Your task to perform on an android device: Add "razer blade" to the cart on bestbuy.com, then select checkout. Image 0: 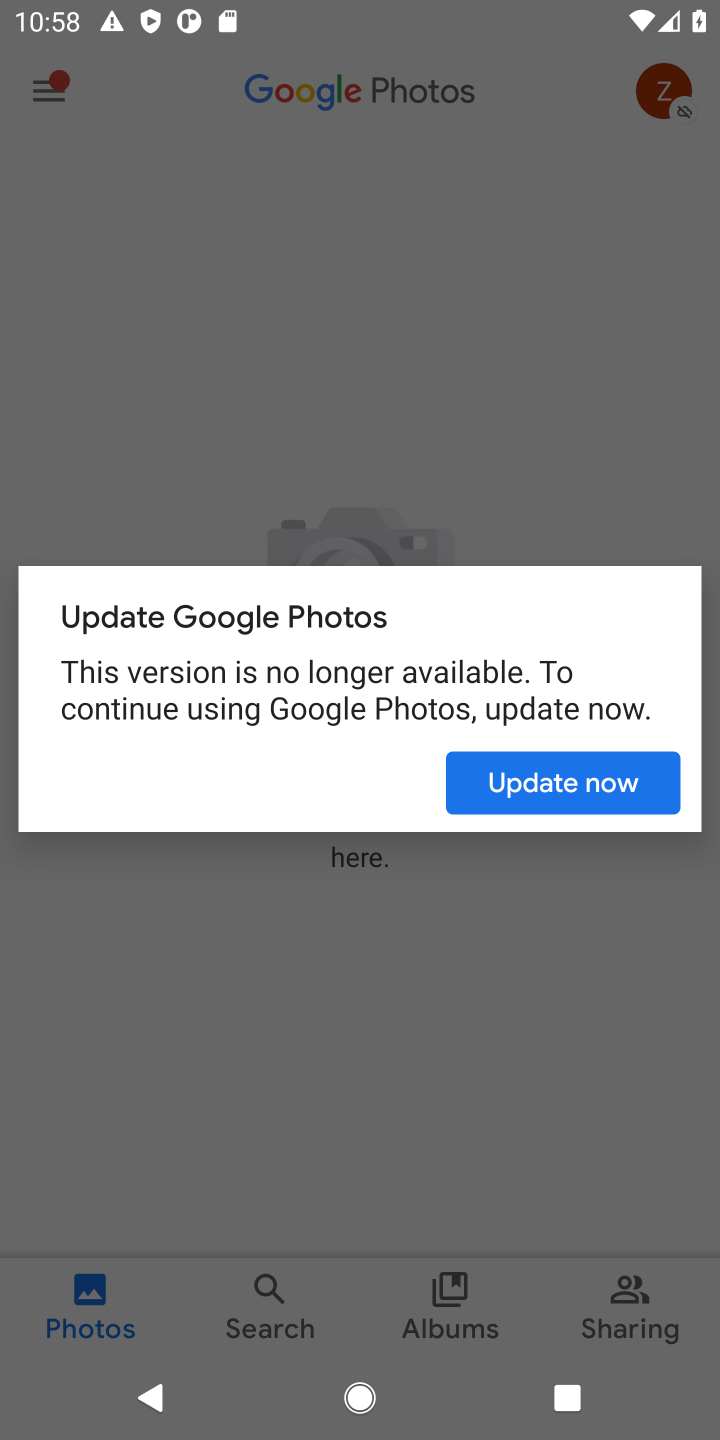
Step 0: press home button
Your task to perform on an android device: Add "razer blade" to the cart on bestbuy.com, then select checkout. Image 1: 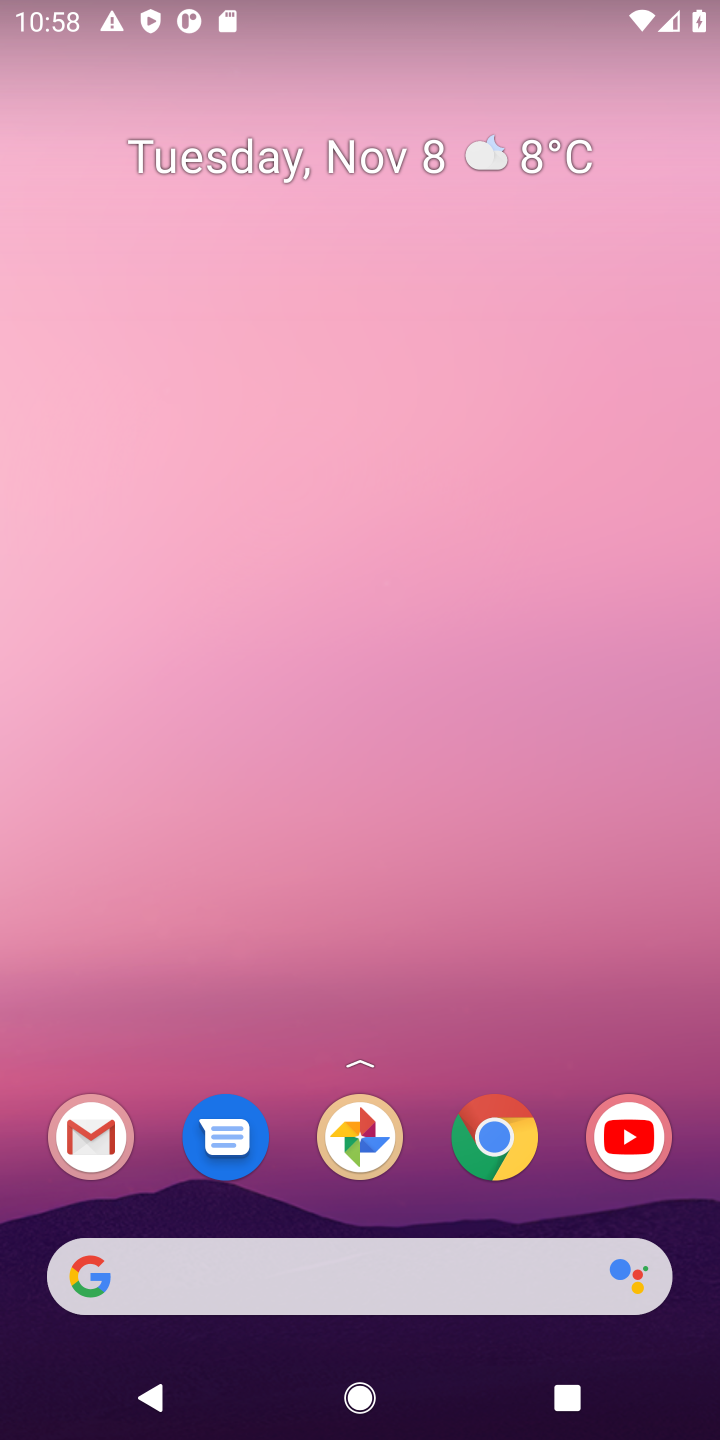
Step 1: click (502, 1127)
Your task to perform on an android device: Add "razer blade" to the cart on bestbuy.com, then select checkout. Image 2: 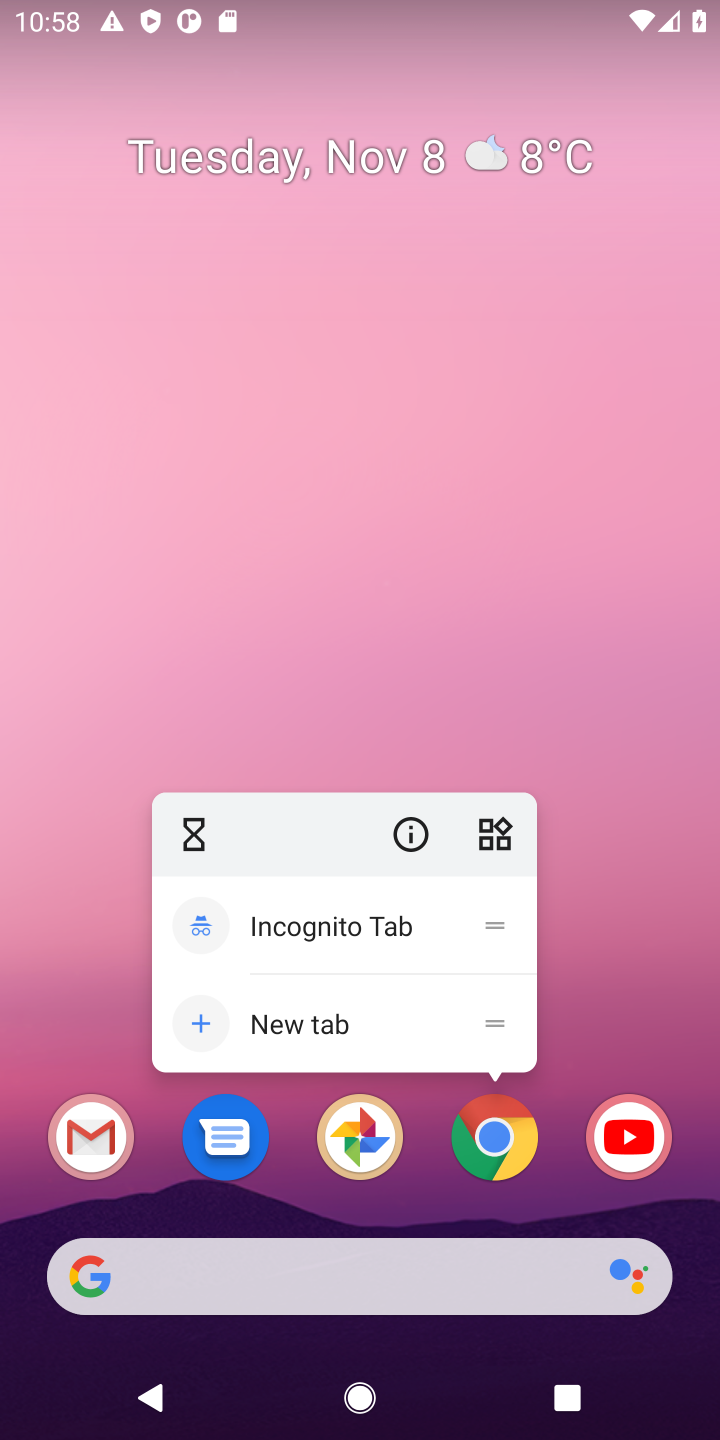
Step 2: click (494, 1148)
Your task to perform on an android device: Add "razer blade" to the cart on bestbuy.com, then select checkout. Image 3: 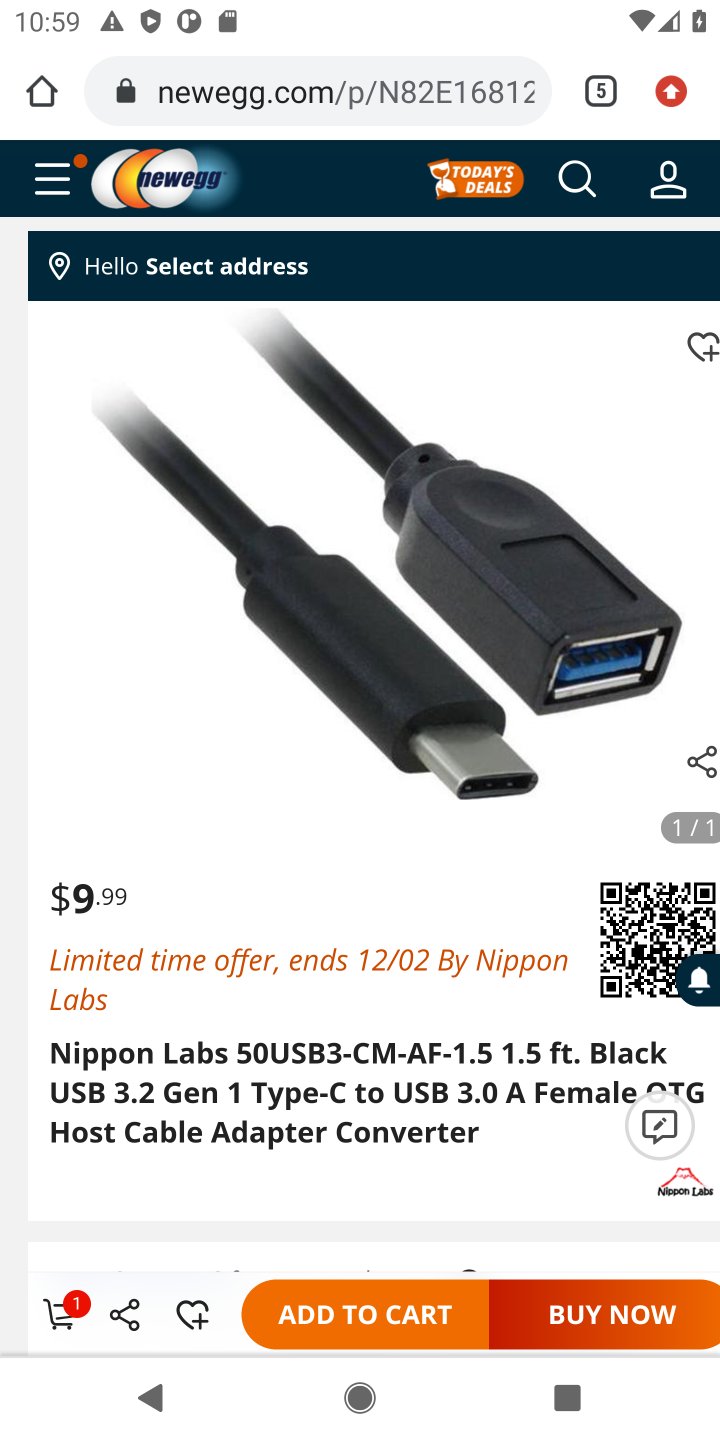
Step 3: click (593, 104)
Your task to perform on an android device: Add "razer blade" to the cart on bestbuy.com, then select checkout. Image 4: 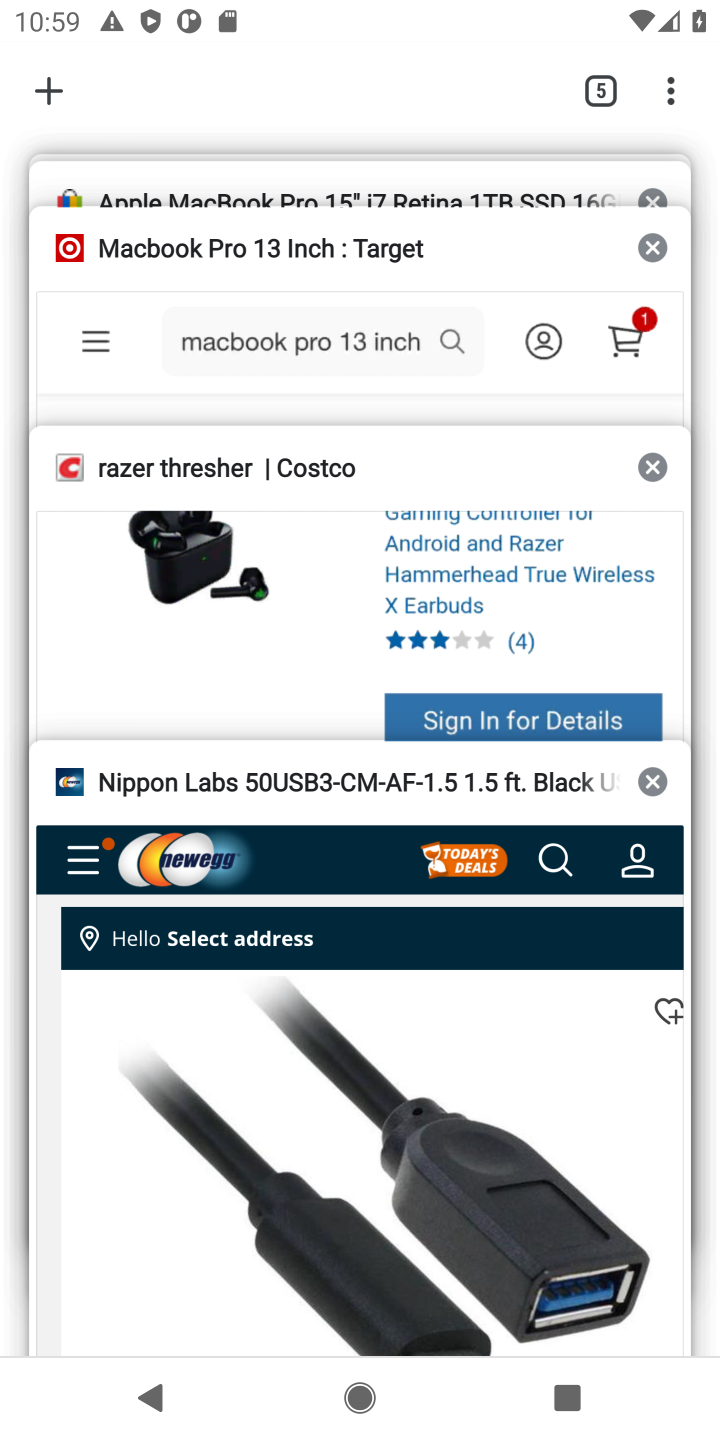
Step 4: click (37, 93)
Your task to perform on an android device: Add "razer blade" to the cart on bestbuy.com, then select checkout. Image 5: 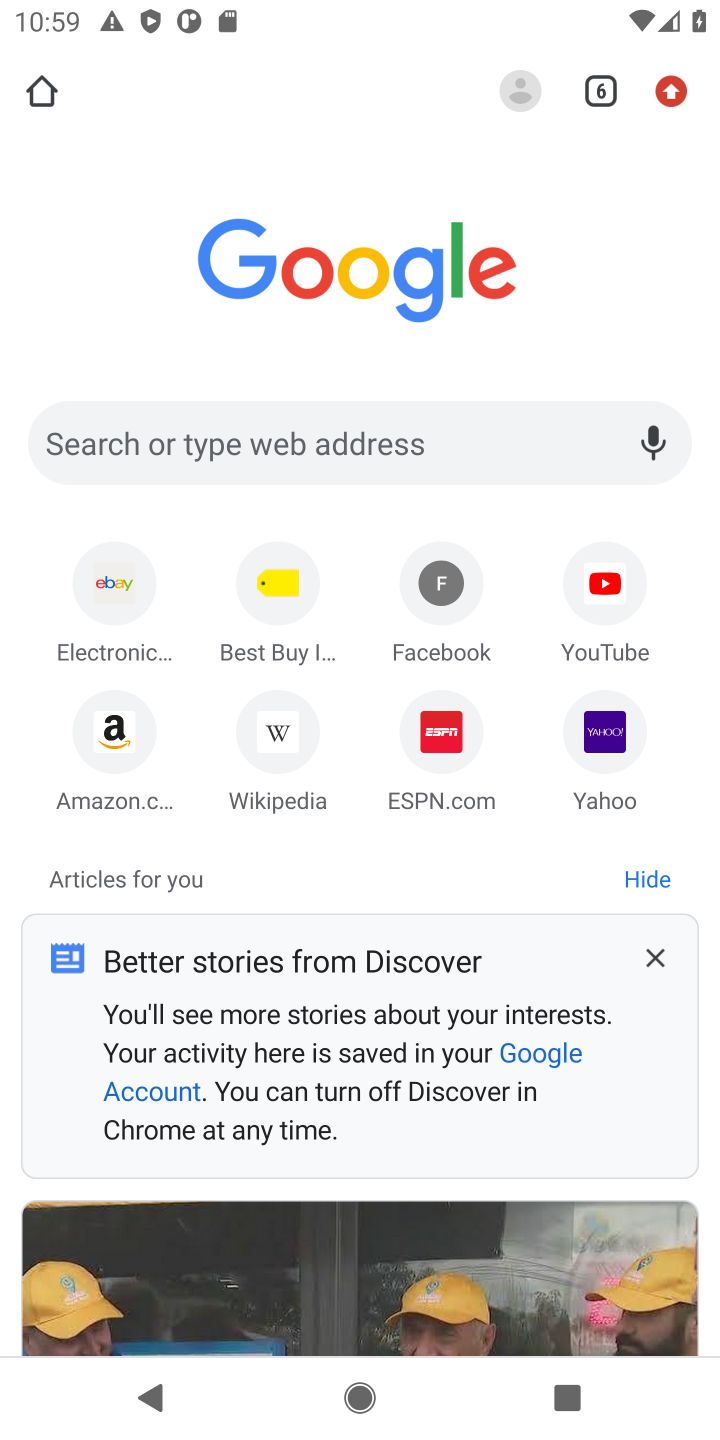
Step 5: click (298, 597)
Your task to perform on an android device: Add "razer blade" to the cart on bestbuy.com, then select checkout. Image 6: 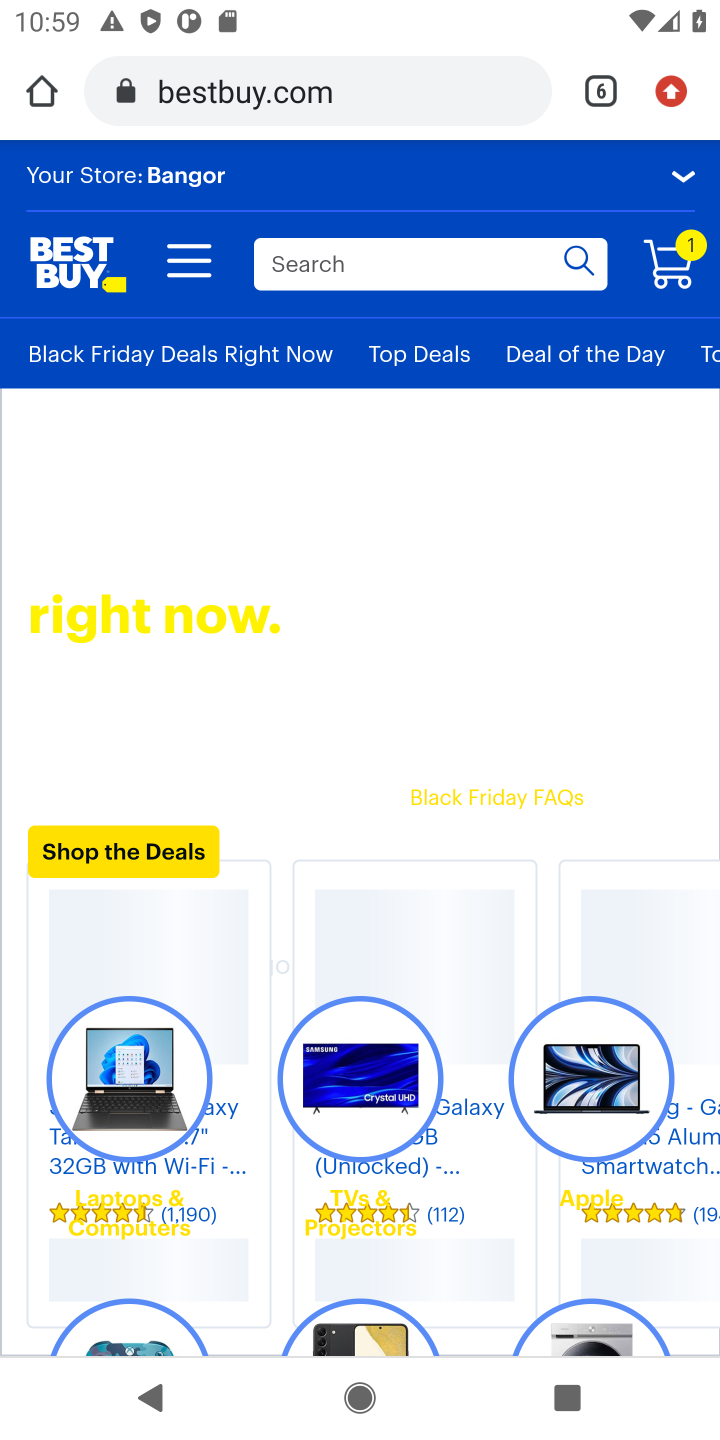
Step 6: click (360, 276)
Your task to perform on an android device: Add "razer blade" to the cart on bestbuy.com, then select checkout. Image 7: 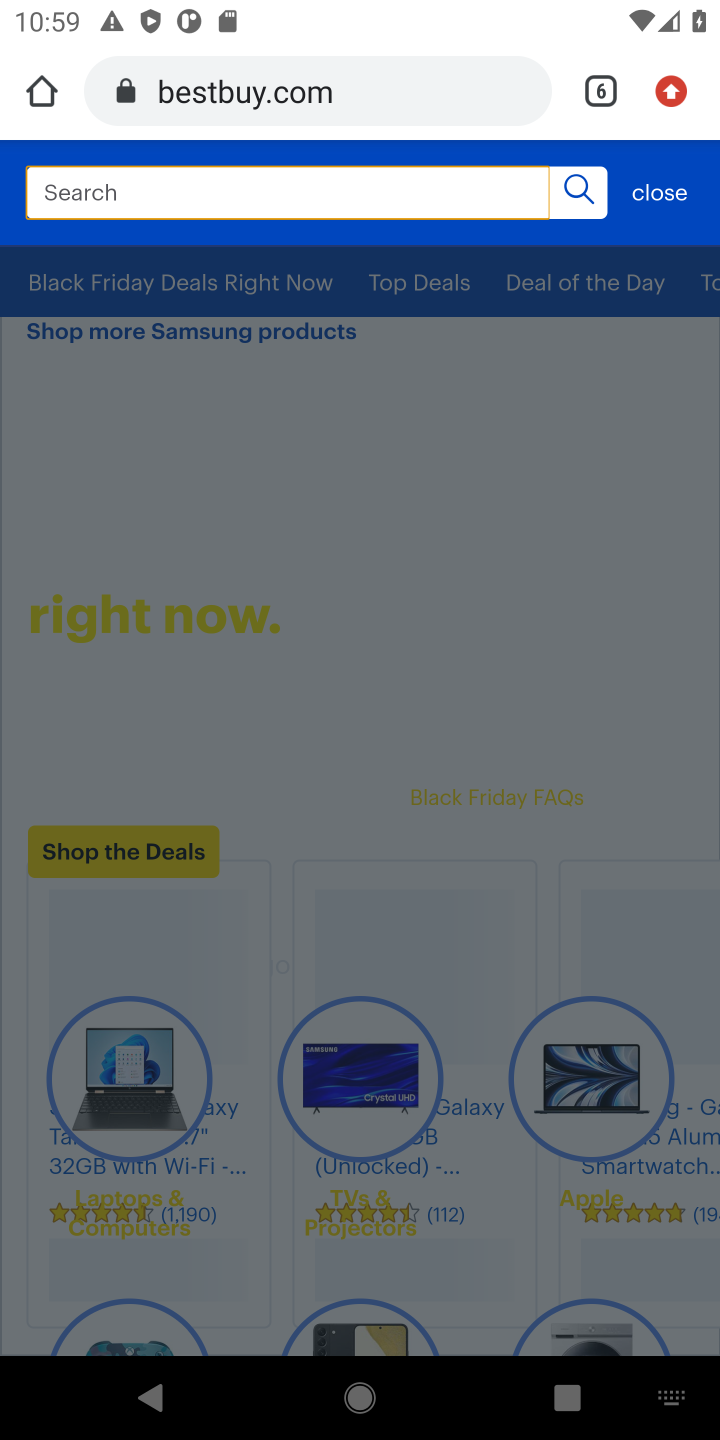
Step 7: type "razer blade"
Your task to perform on an android device: Add "razer blade" to the cart on bestbuy.com, then select checkout. Image 8: 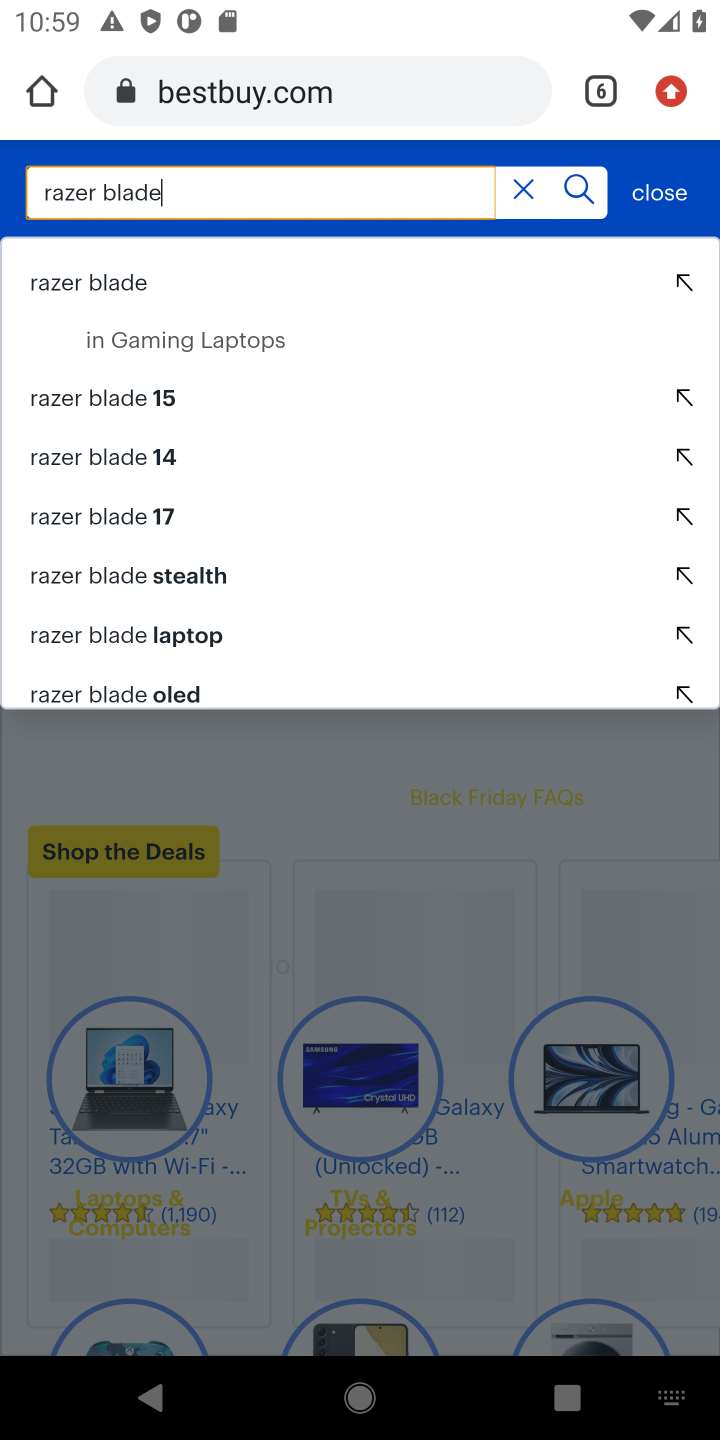
Step 8: click (55, 282)
Your task to perform on an android device: Add "razer blade" to the cart on bestbuy.com, then select checkout. Image 9: 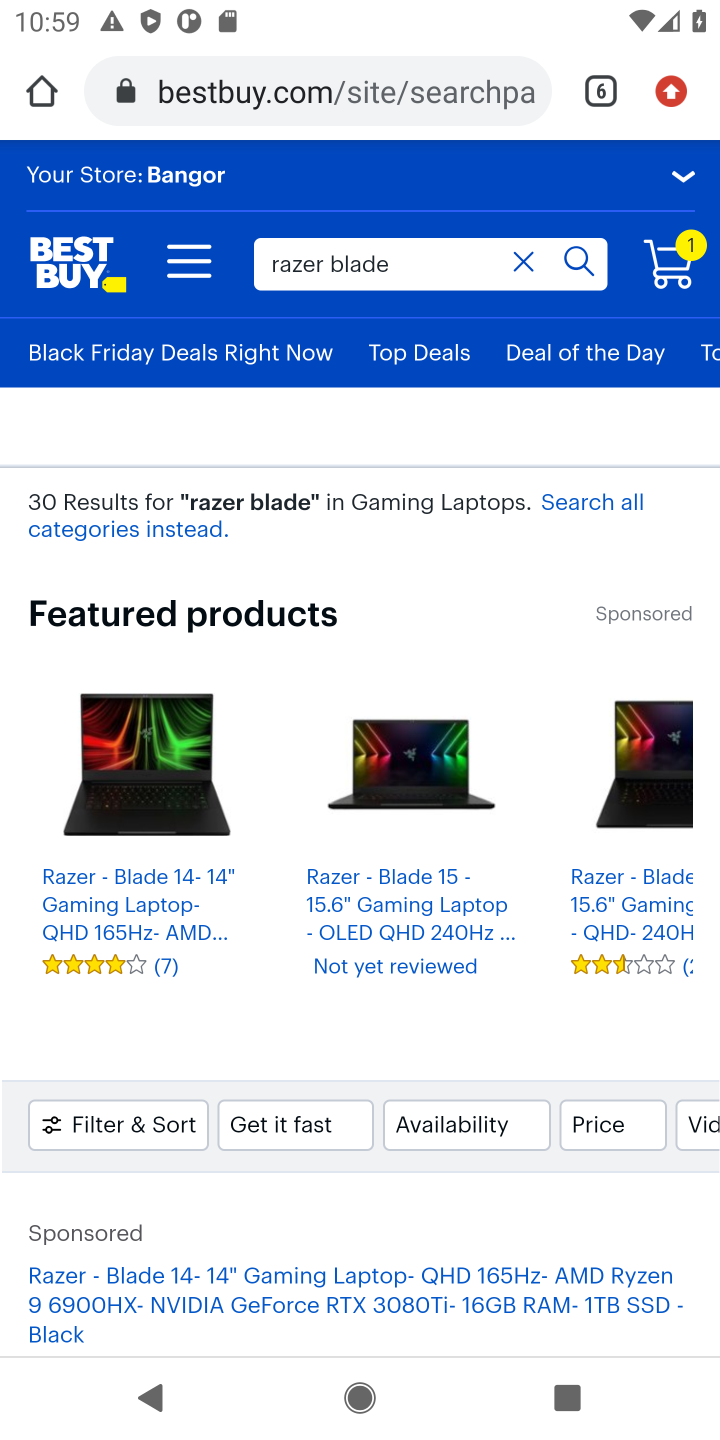
Step 9: click (265, 1278)
Your task to perform on an android device: Add "razer blade" to the cart on bestbuy.com, then select checkout. Image 10: 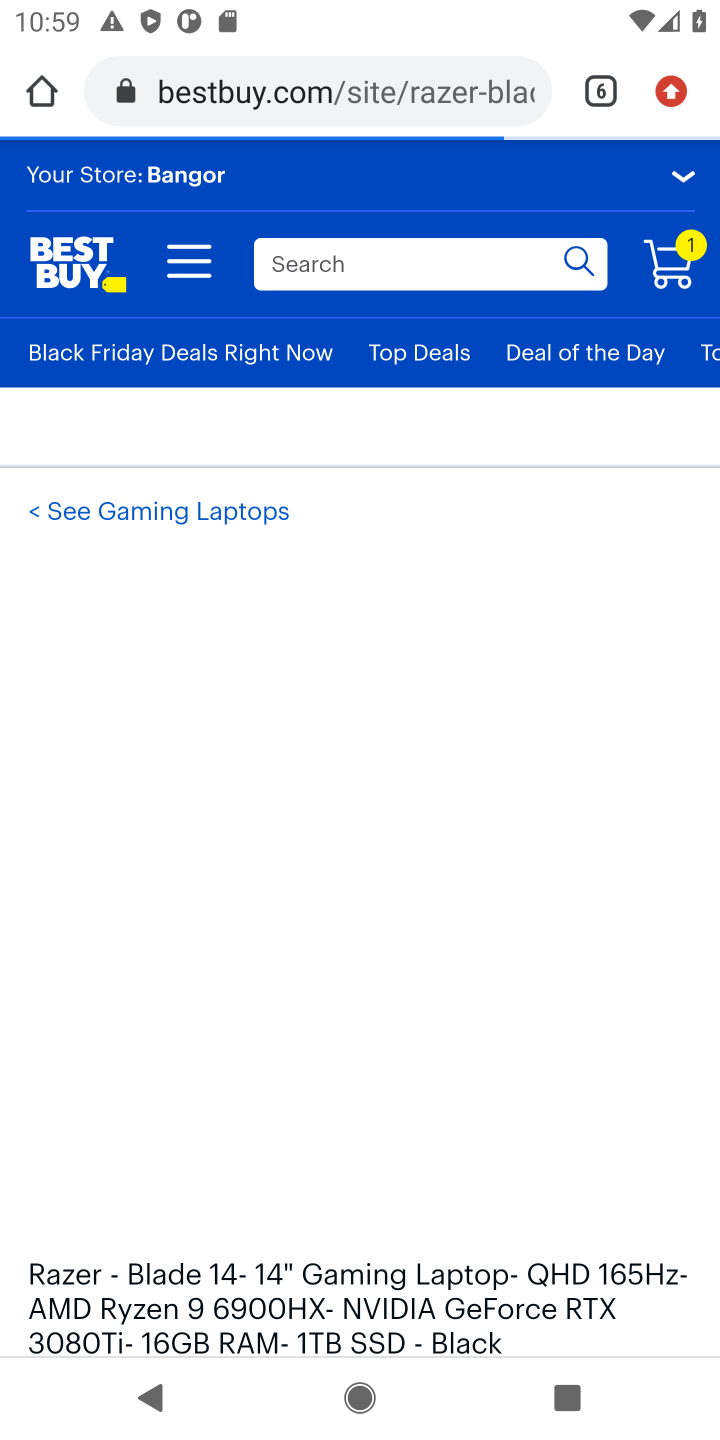
Step 10: drag from (236, 1295) to (455, 780)
Your task to perform on an android device: Add "razer blade" to the cart on bestbuy.com, then select checkout. Image 11: 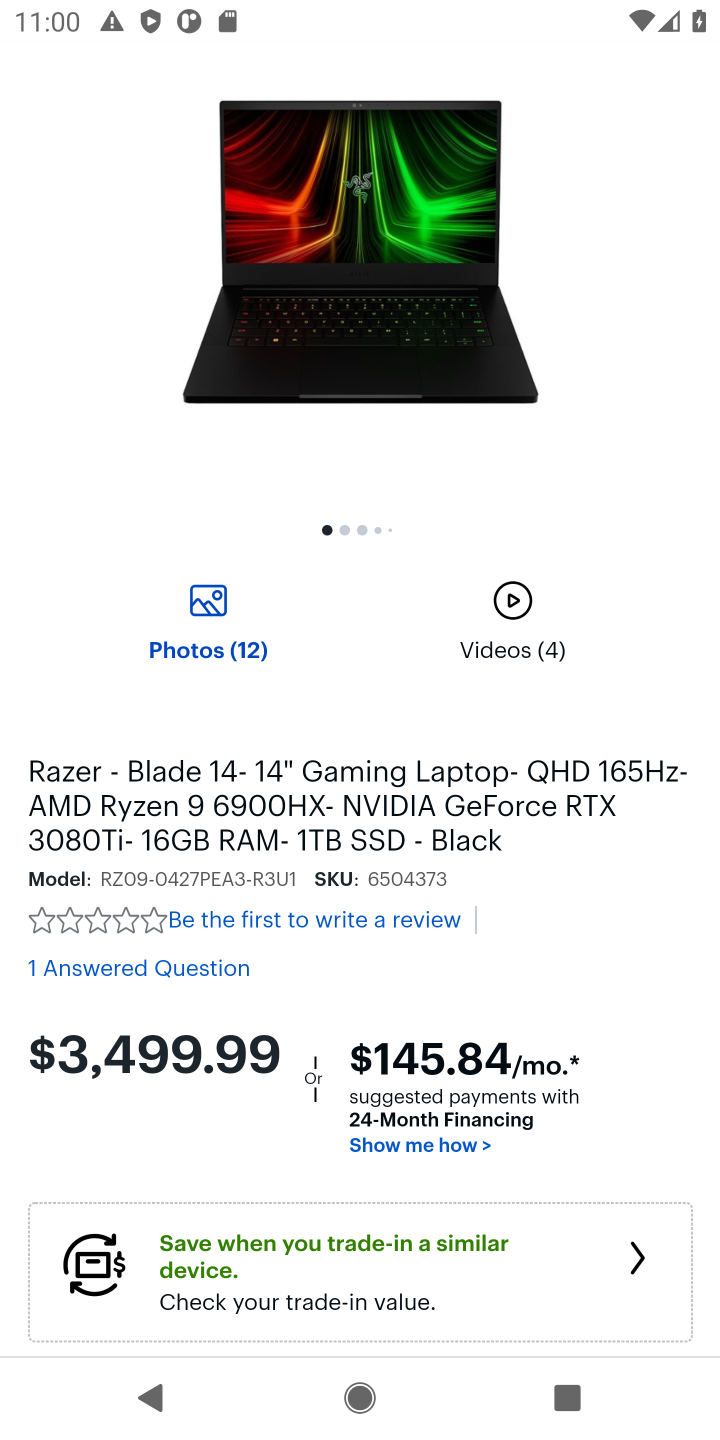
Step 11: drag from (582, 1141) to (579, 537)
Your task to perform on an android device: Add "razer blade" to the cart on bestbuy.com, then select checkout. Image 12: 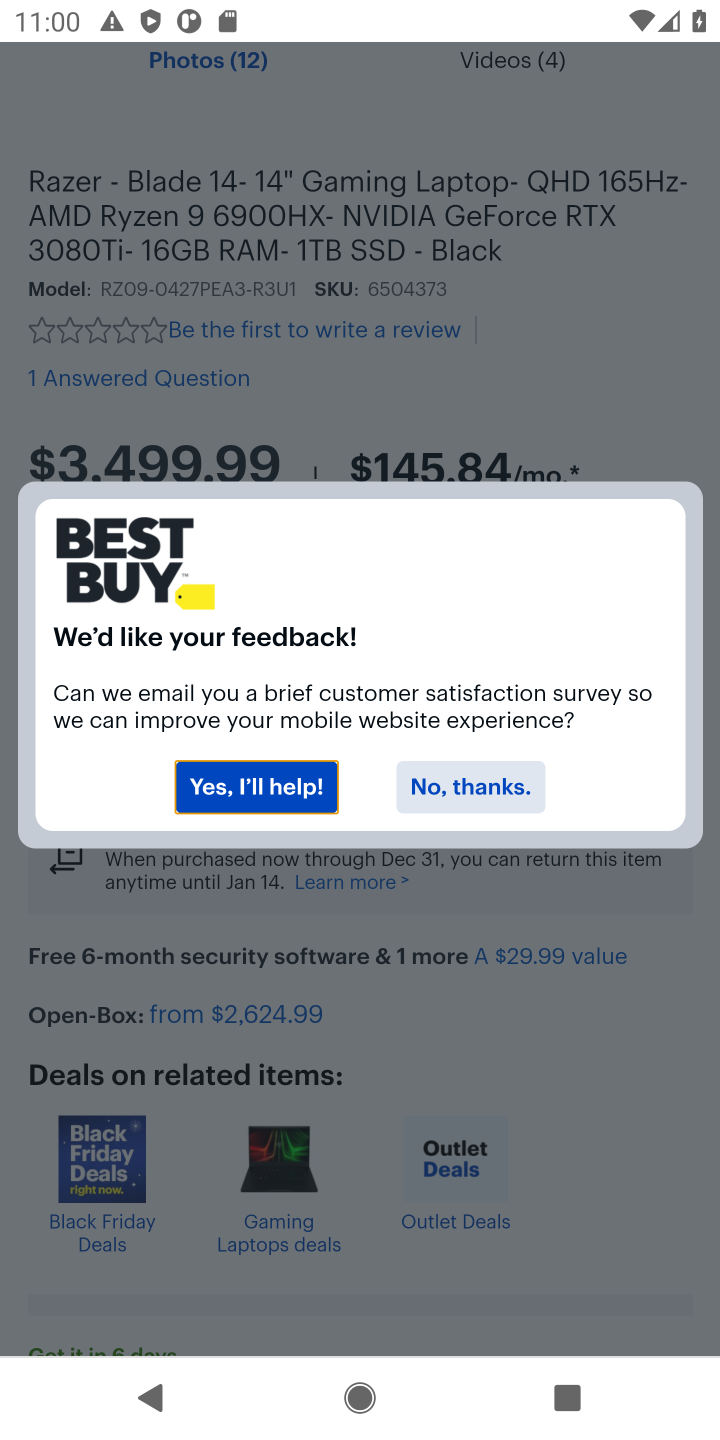
Step 12: click (440, 782)
Your task to perform on an android device: Add "razer blade" to the cart on bestbuy.com, then select checkout. Image 13: 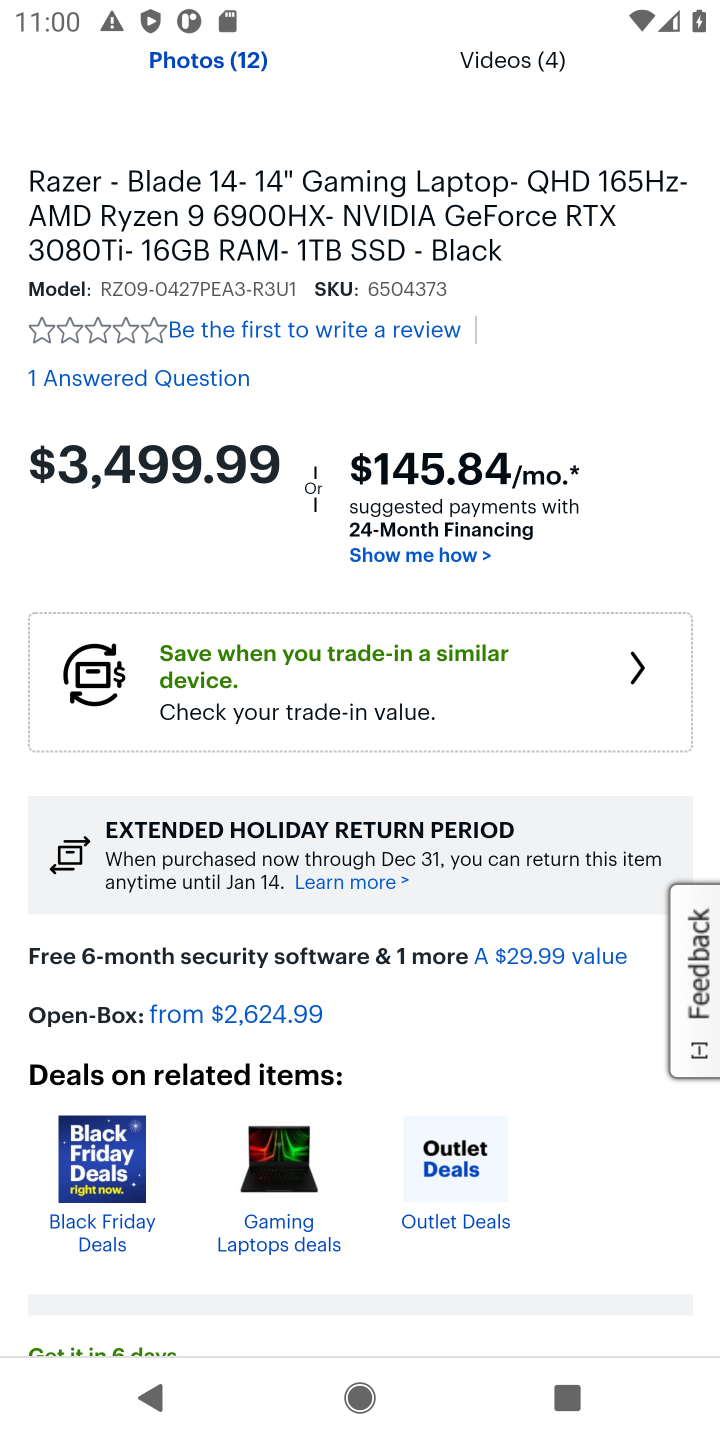
Step 13: click (473, 784)
Your task to perform on an android device: Add "razer blade" to the cart on bestbuy.com, then select checkout. Image 14: 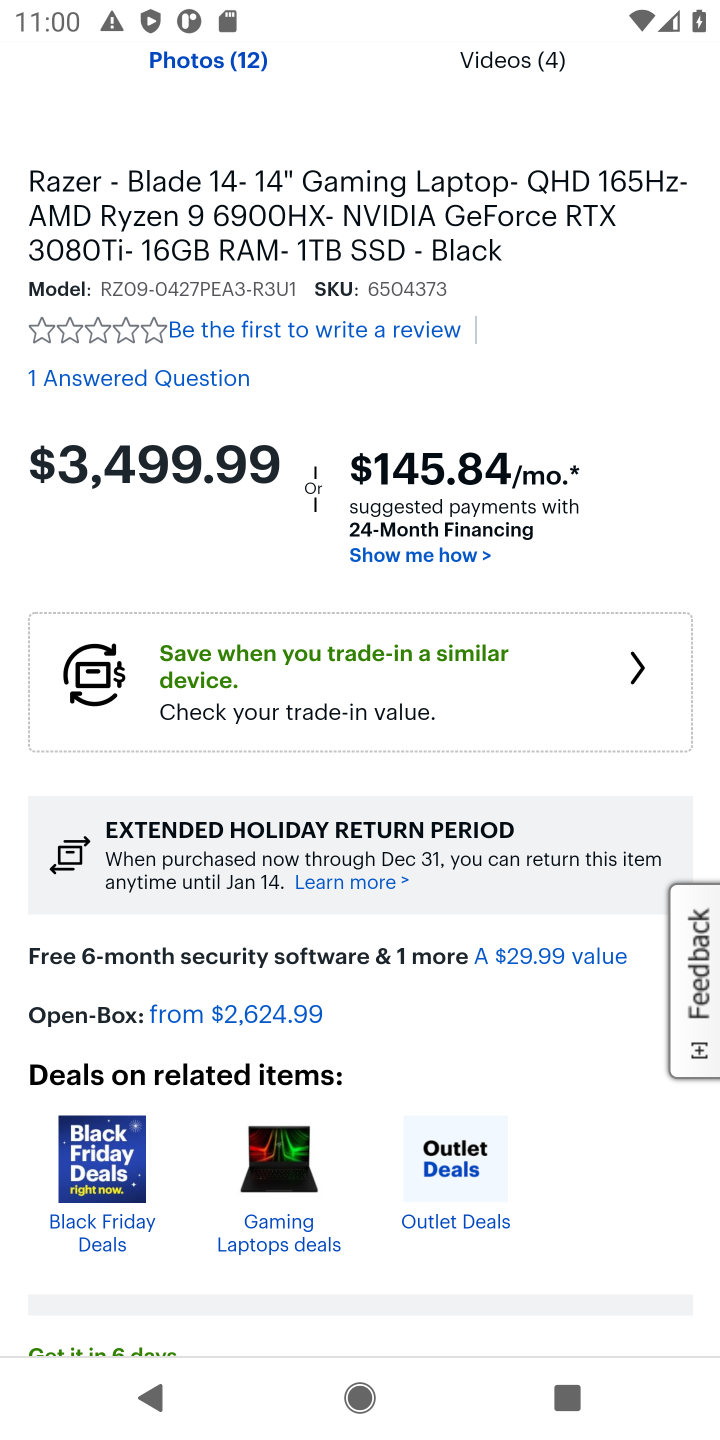
Step 14: drag from (473, 784) to (506, 154)
Your task to perform on an android device: Add "razer blade" to the cart on bestbuy.com, then select checkout. Image 15: 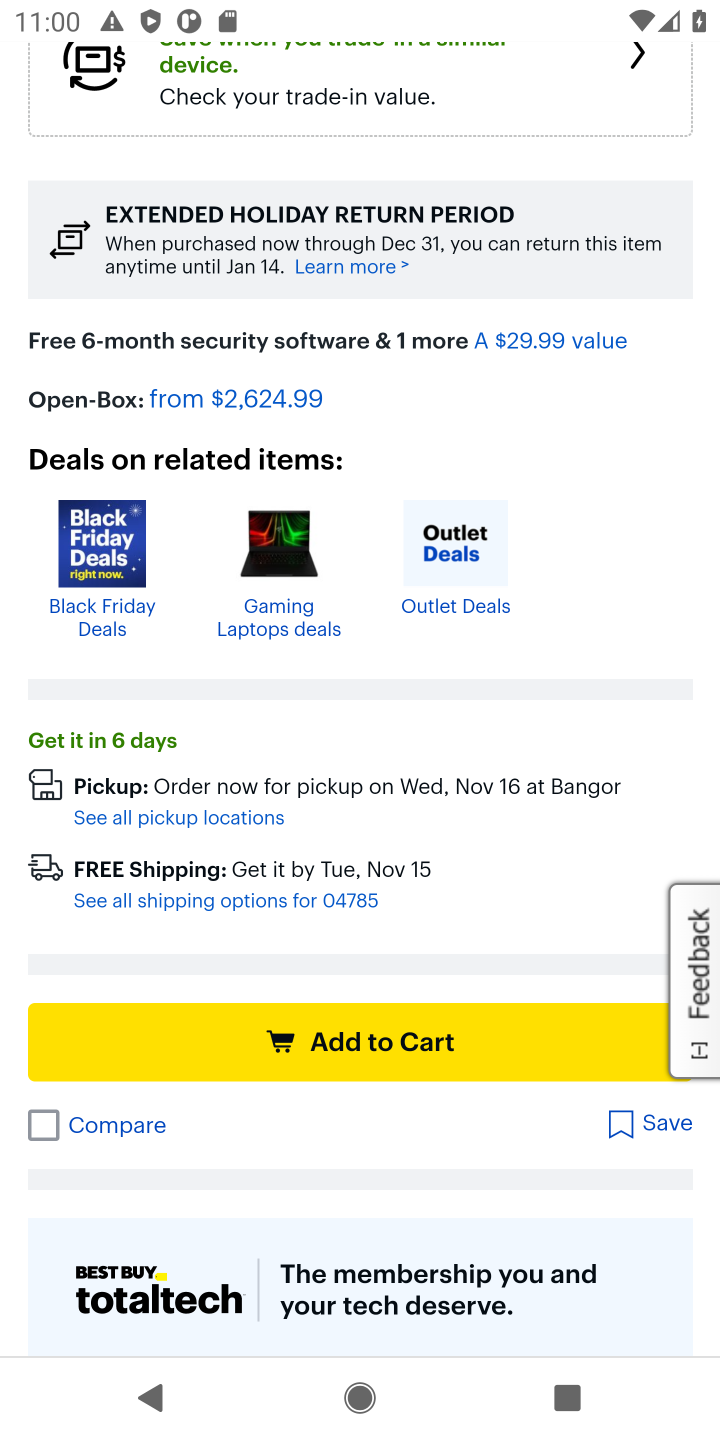
Step 15: click (380, 1043)
Your task to perform on an android device: Add "razer blade" to the cart on bestbuy.com, then select checkout. Image 16: 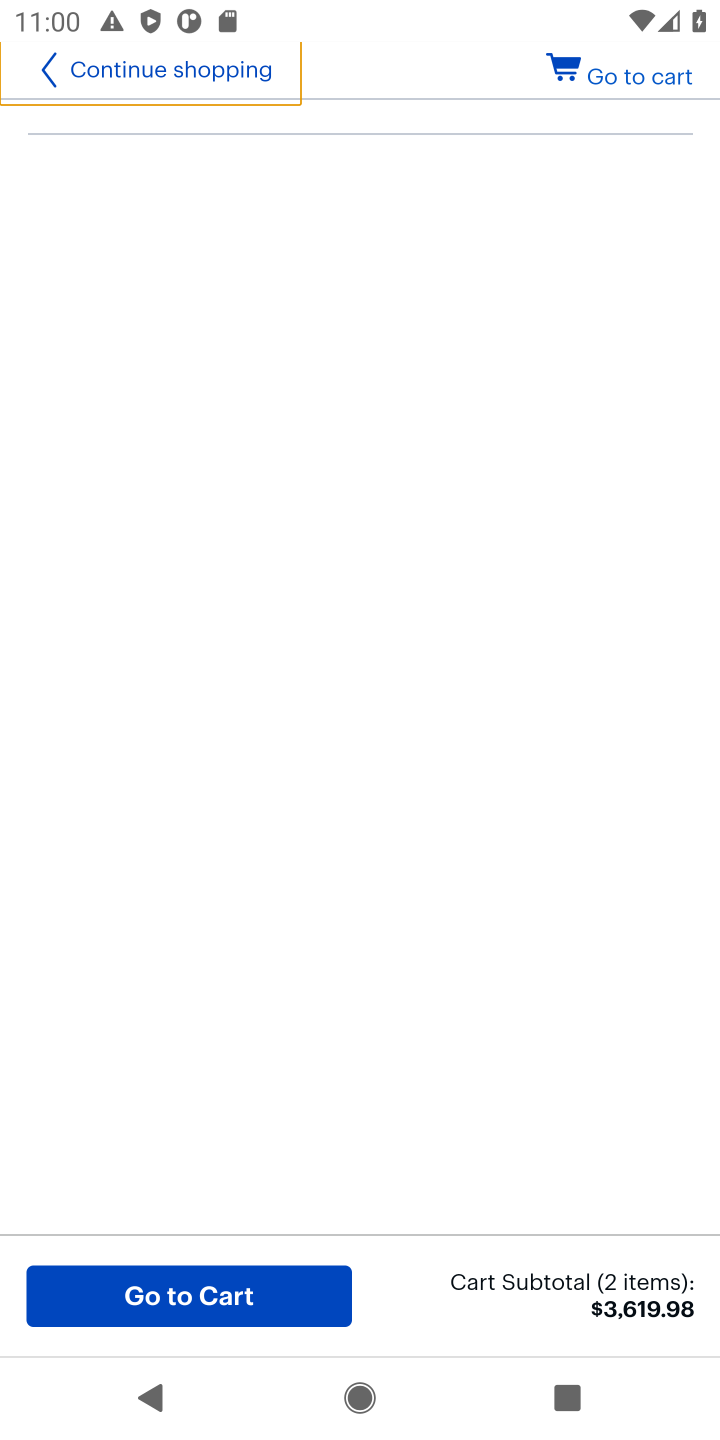
Step 16: click (639, 78)
Your task to perform on an android device: Add "razer blade" to the cart on bestbuy.com, then select checkout. Image 17: 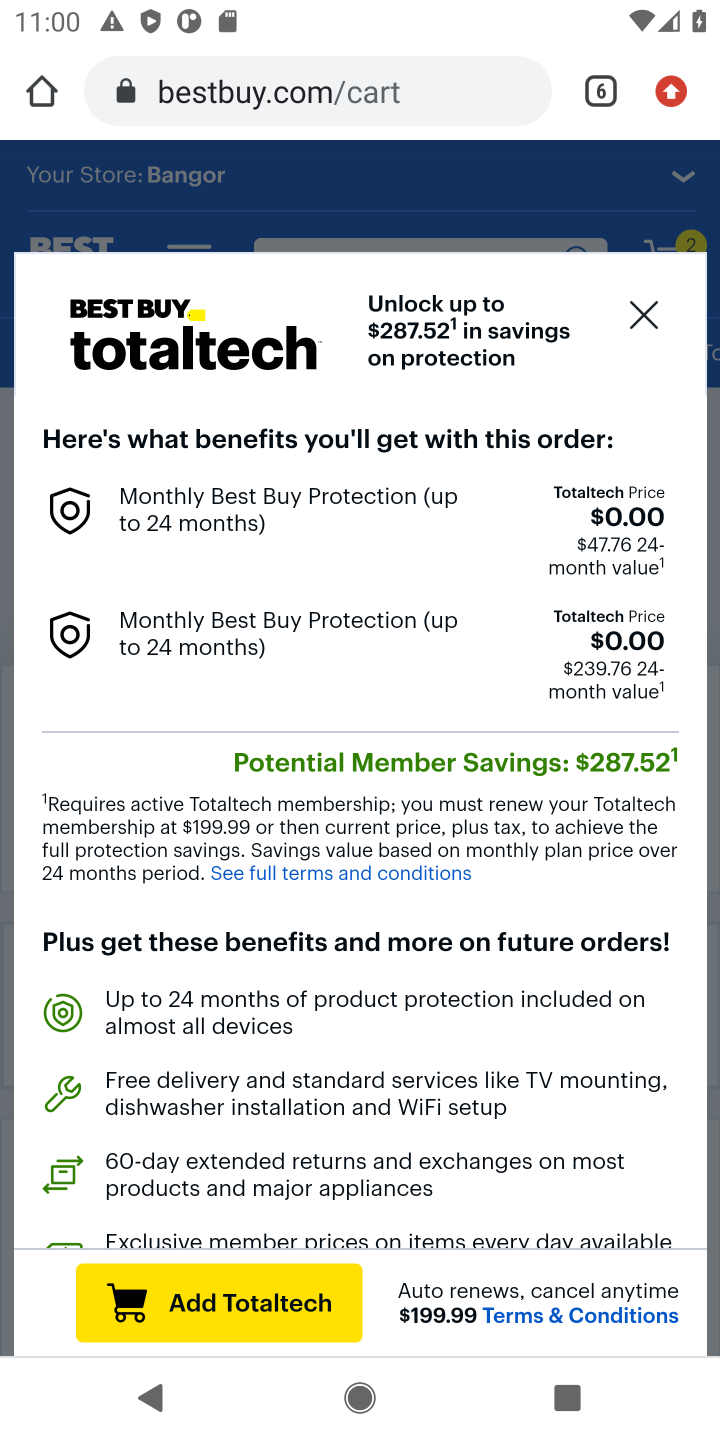
Step 17: click (642, 317)
Your task to perform on an android device: Add "razer blade" to the cart on bestbuy.com, then select checkout. Image 18: 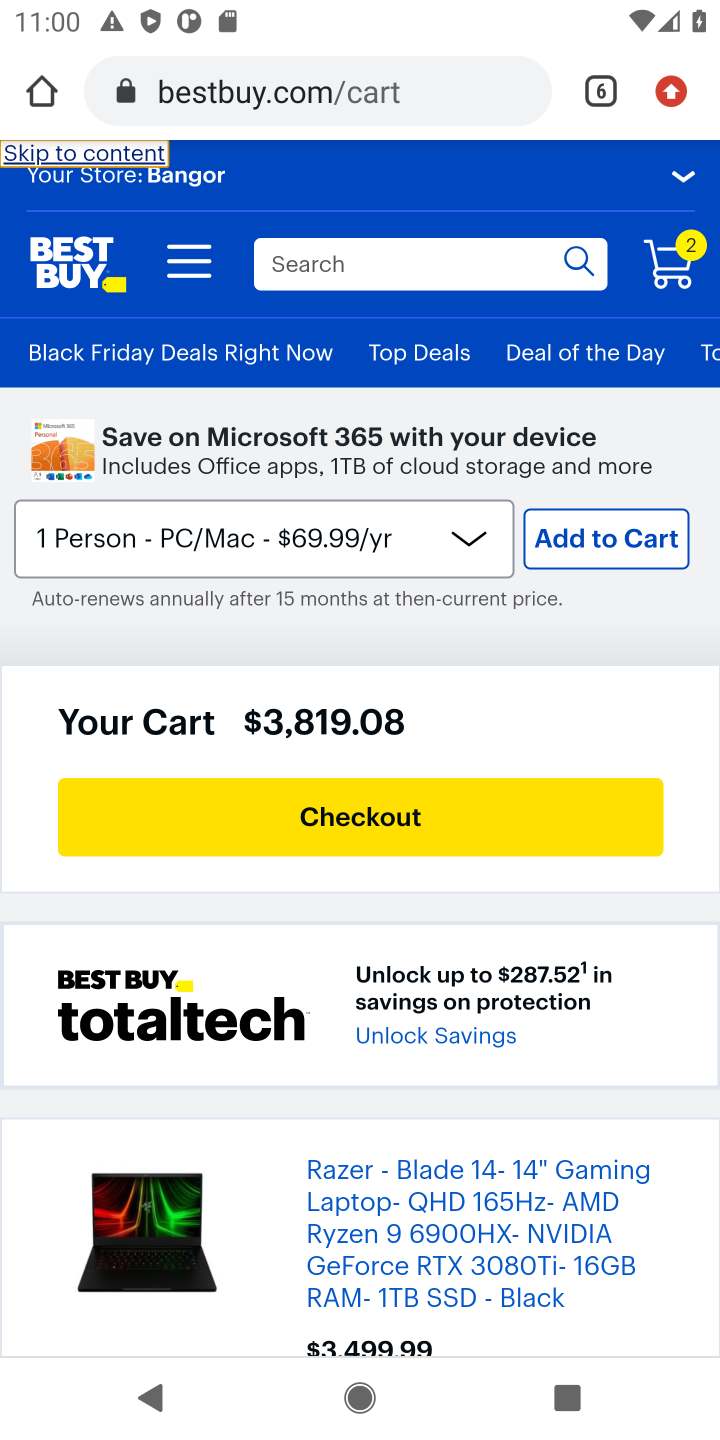
Step 18: click (389, 822)
Your task to perform on an android device: Add "razer blade" to the cart on bestbuy.com, then select checkout. Image 19: 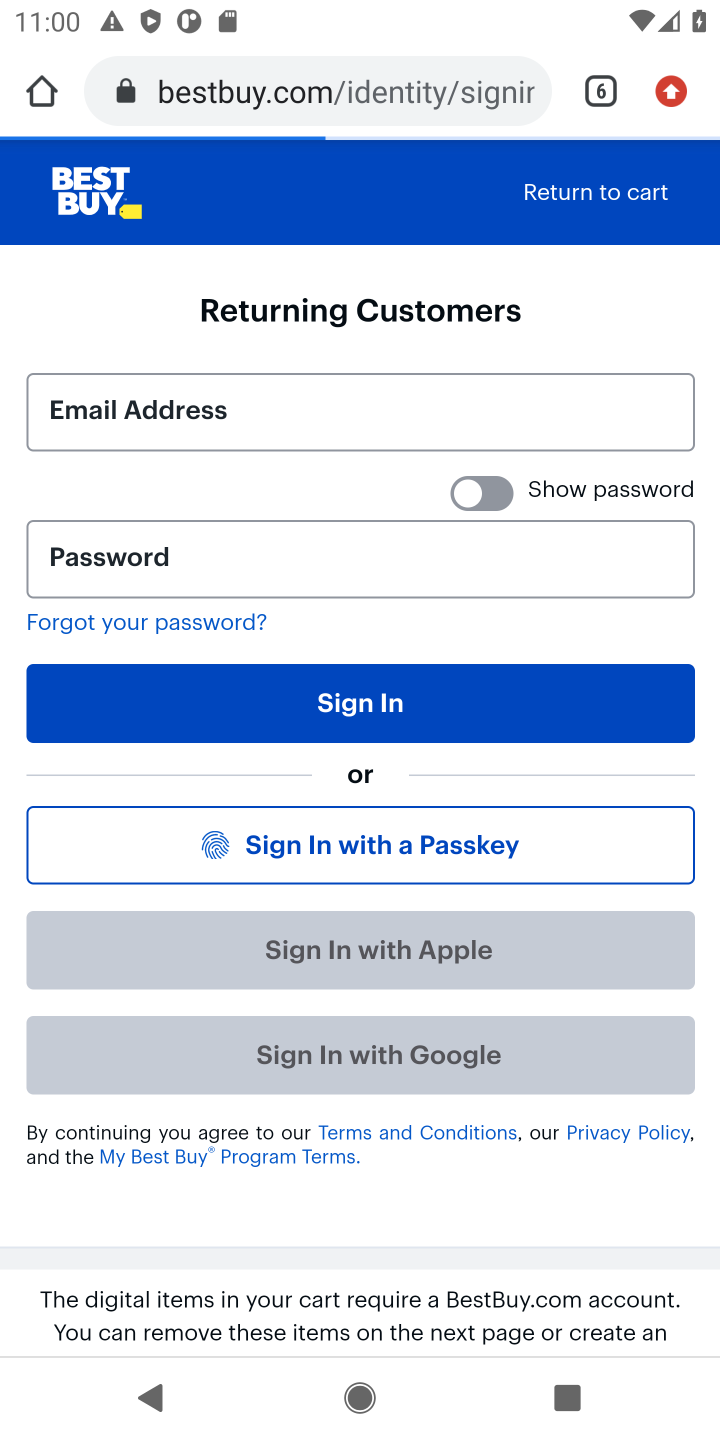
Step 19: task complete